Your task to perform on an android device: toggle pop-ups in chrome Image 0: 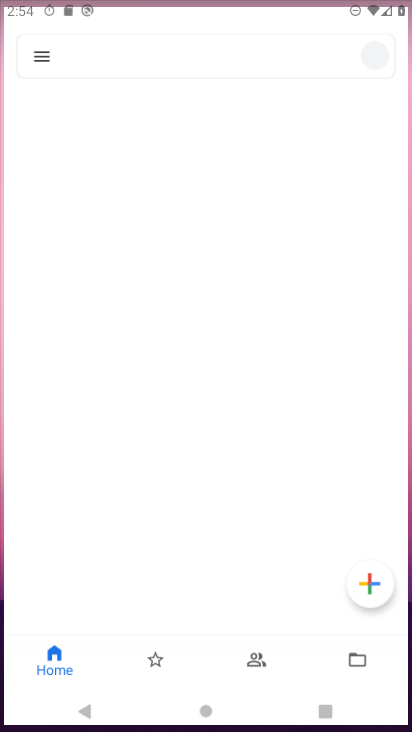
Step 0: drag from (221, 640) to (221, 96)
Your task to perform on an android device: toggle pop-ups in chrome Image 1: 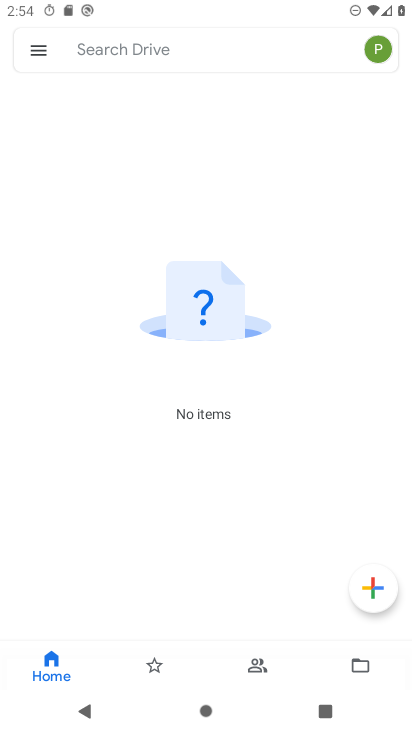
Step 1: press home button
Your task to perform on an android device: toggle pop-ups in chrome Image 2: 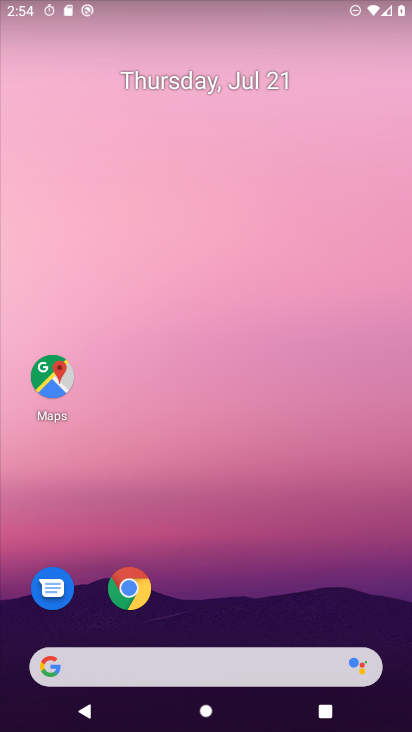
Step 2: drag from (278, 605) to (305, 84)
Your task to perform on an android device: toggle pop-ups in chrome Image 3: 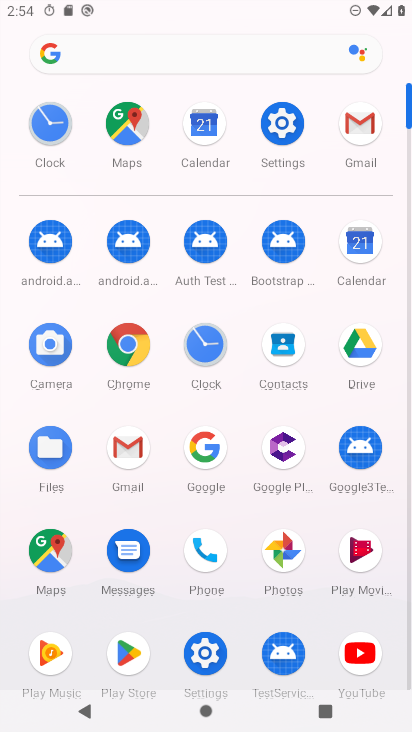
Step 3: click (127, 346)
Your task to perform on an android device: toggle pop-ups in chrome Image 4: 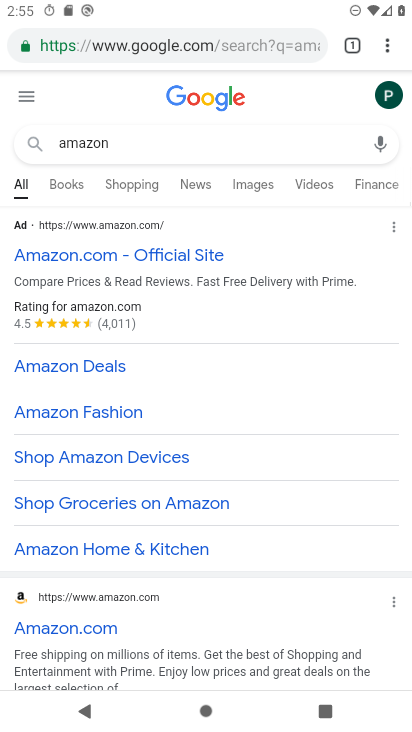
Step 4: click (383, 52)
Your task to perform on an android device: toggle pop-ups in chrome Image 5: 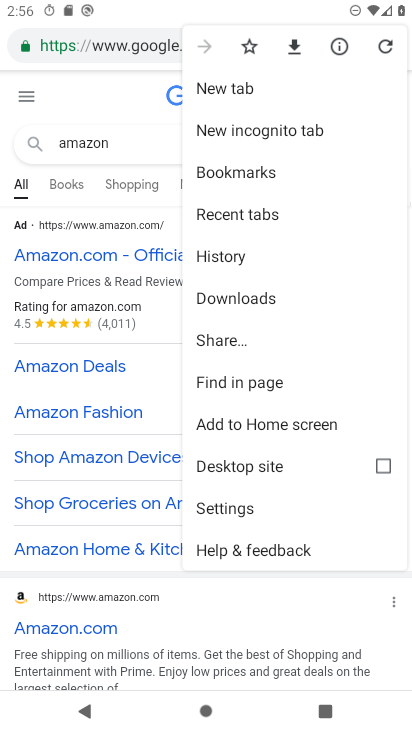
Step 5: click (242, 514)
Your task to perform on an android device: toggle pop-ups in chrome Image 6: 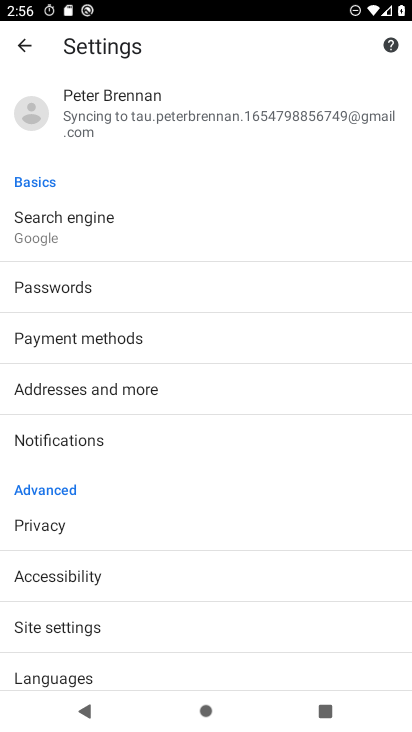
Step 6: click (82, 633)
Your task to perform on an android device: toggle pop-ups in chrome Image 7: 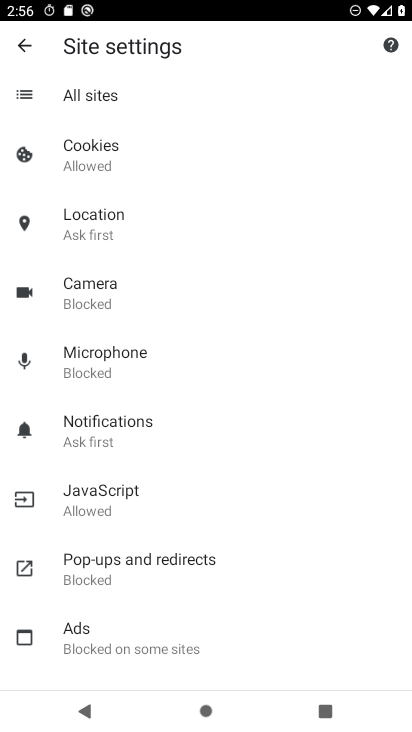
Step 7: click (151, 563)
Your task to perform on an android device: toggle pop-ups in chrome Image 8: 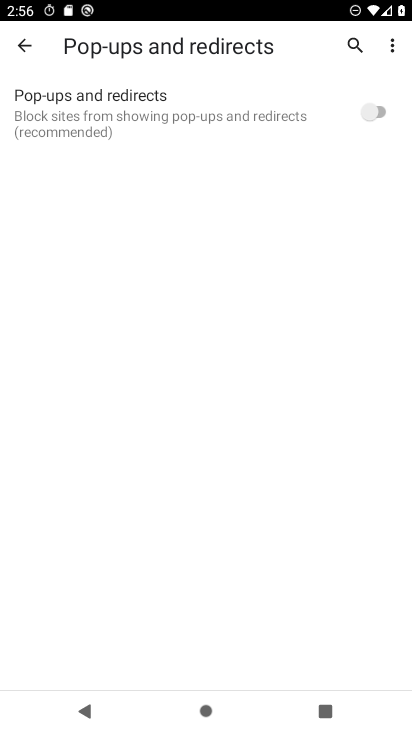
Step 8: click (321, 114)
Your task to perform on an android device: toggle pop-ups in chrome Image 9: 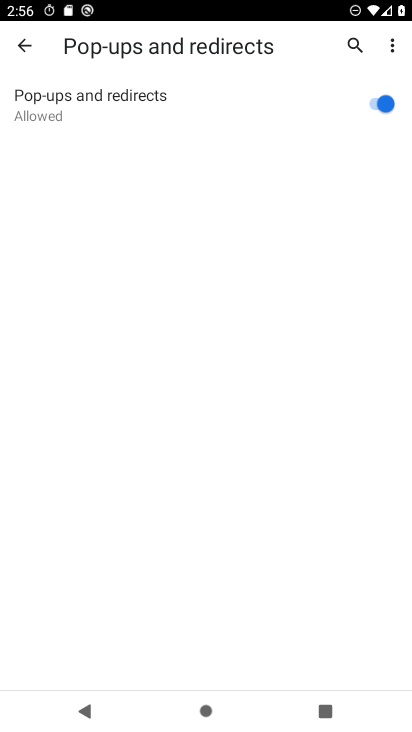
Step 9: task complete